Your task to perform on an android device: turn off notifications in google photos Image 0: 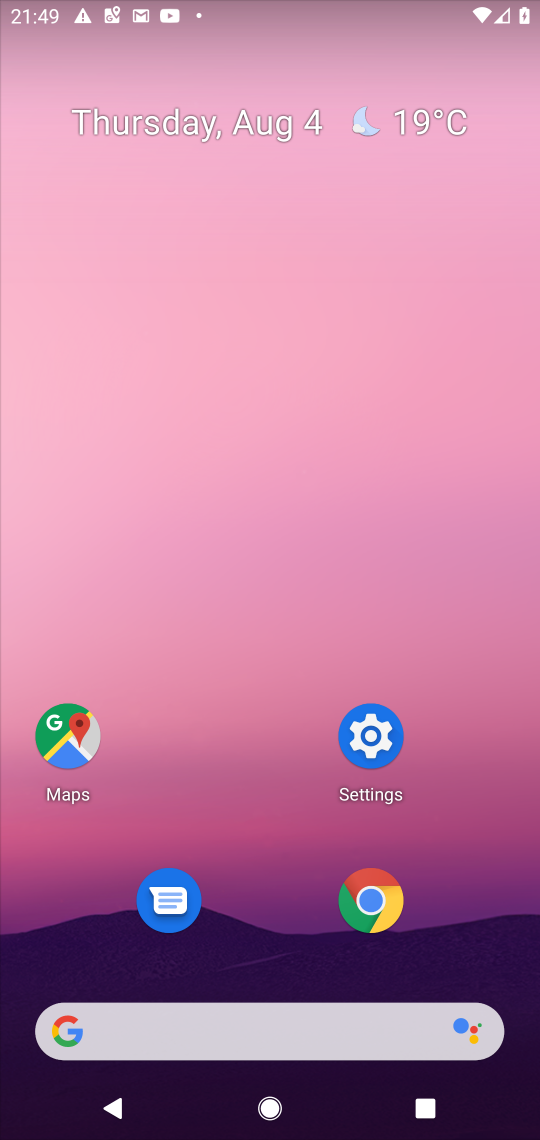
Step 0: drag from (289, 938) to (374, 420)
Your task to perform on an android device: turn off notifications in google photos Image 1: 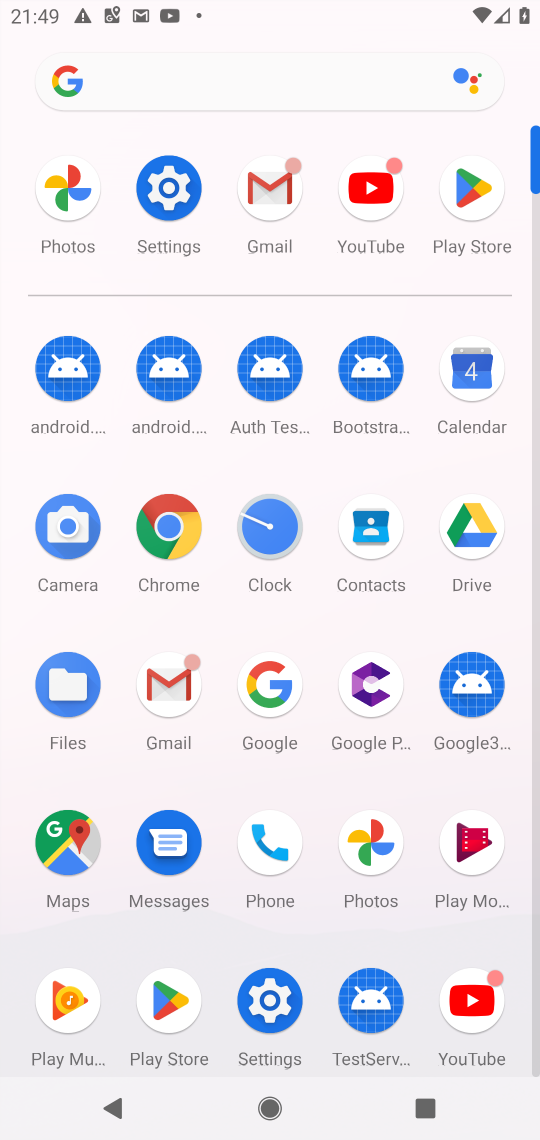
Step 1: click (372, 837)
Your task to perform on an android device: turn off notifications in google photos Image 2: 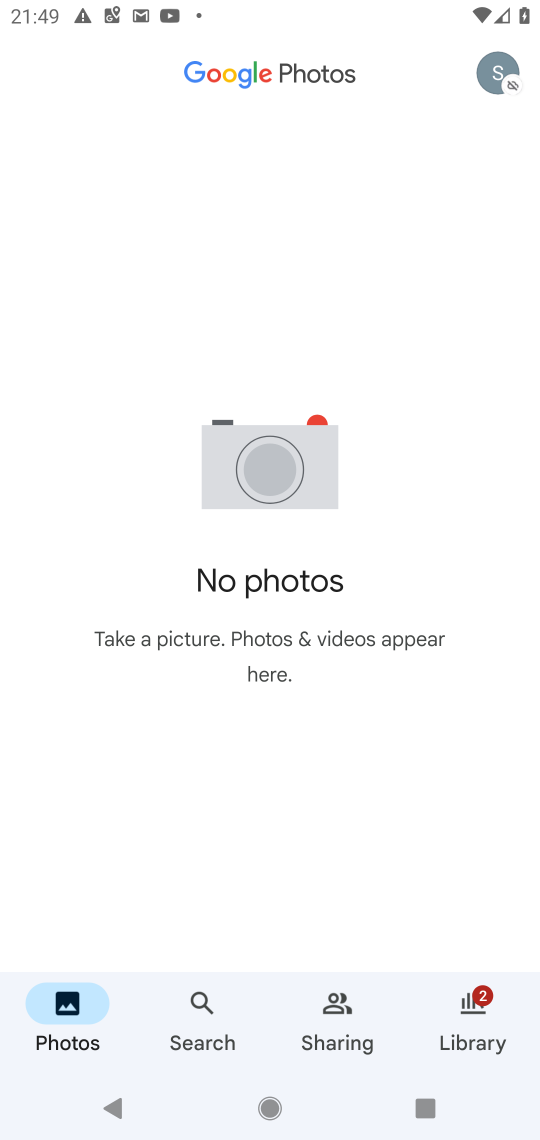
Step 2: click (494, 69)
Your task to perform on an android device: turn off notifications in google photos Image 3: 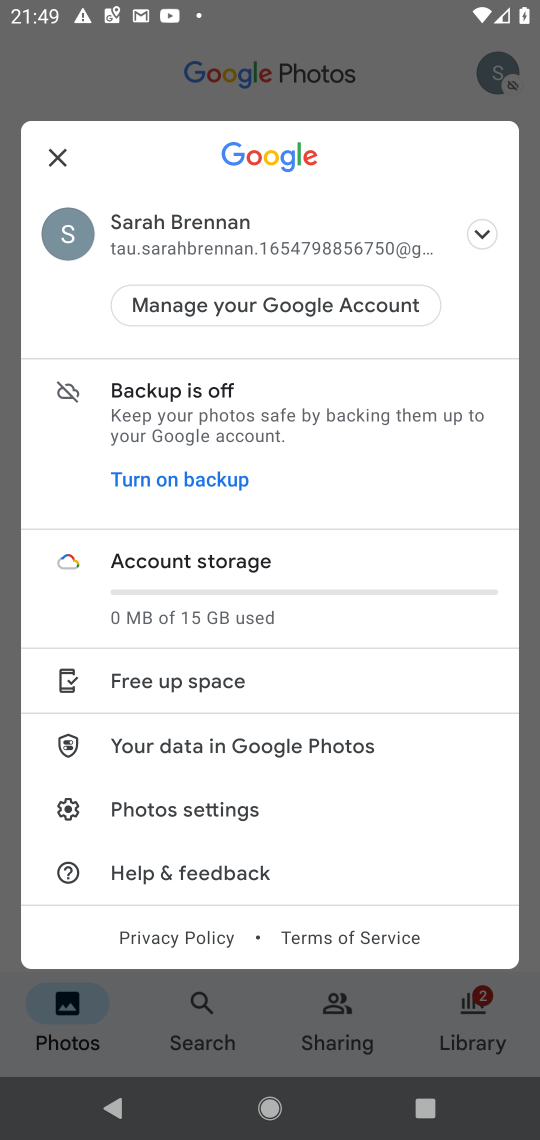
Step 3: click (183, 806)
Your task to perform on an android device: turn off notifications in google photos Image 4: 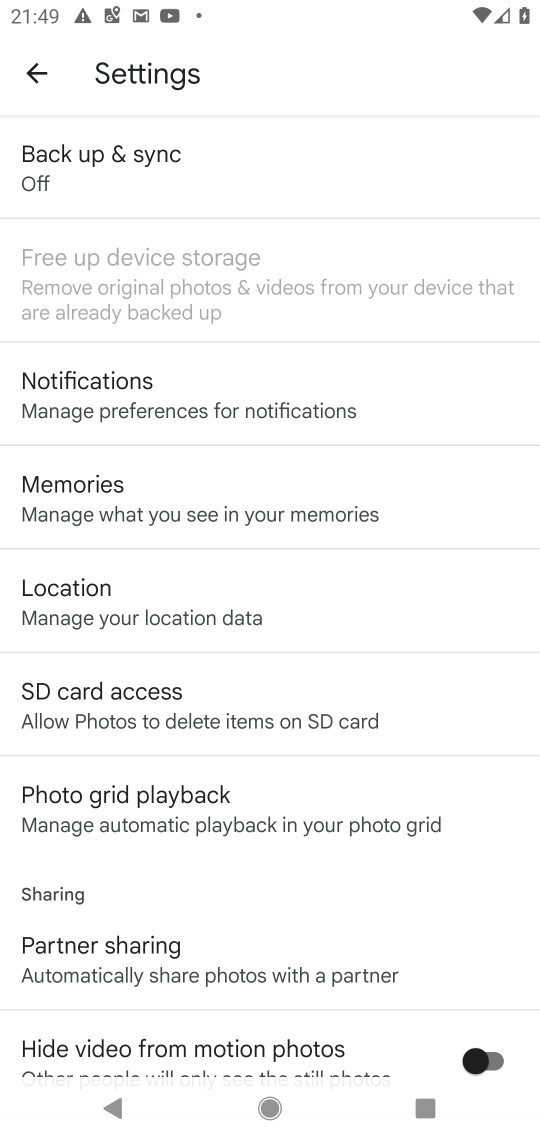
Step 4: click (191, 405)
Your task to perform on an android device: turn off notifications in google photos Image 5: 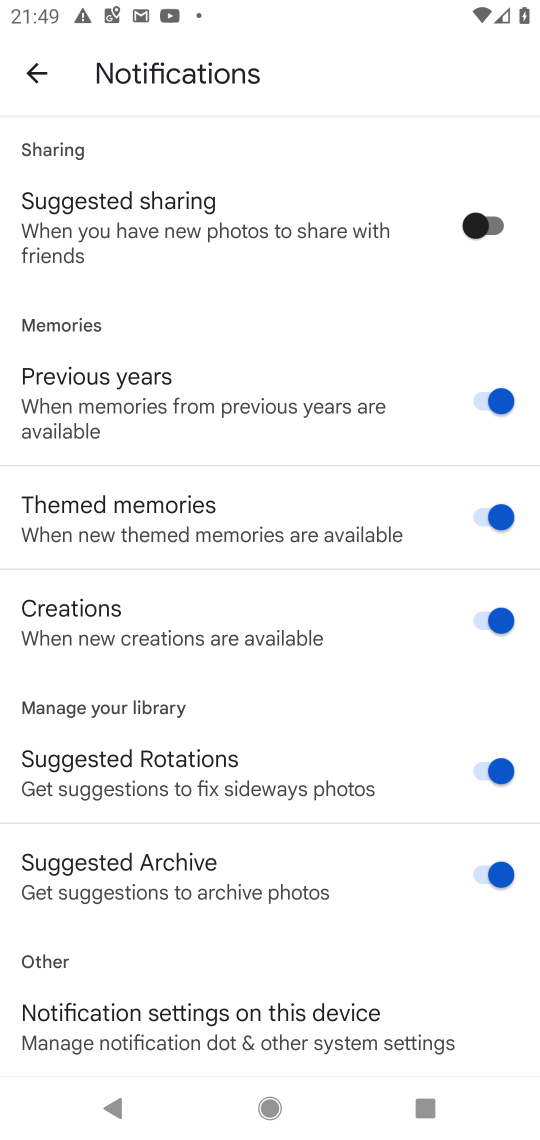
Step 5: drag from (227, 865) to (430, 108)
Your task to perform on an android device: turn off notifications in google photos Image 6: 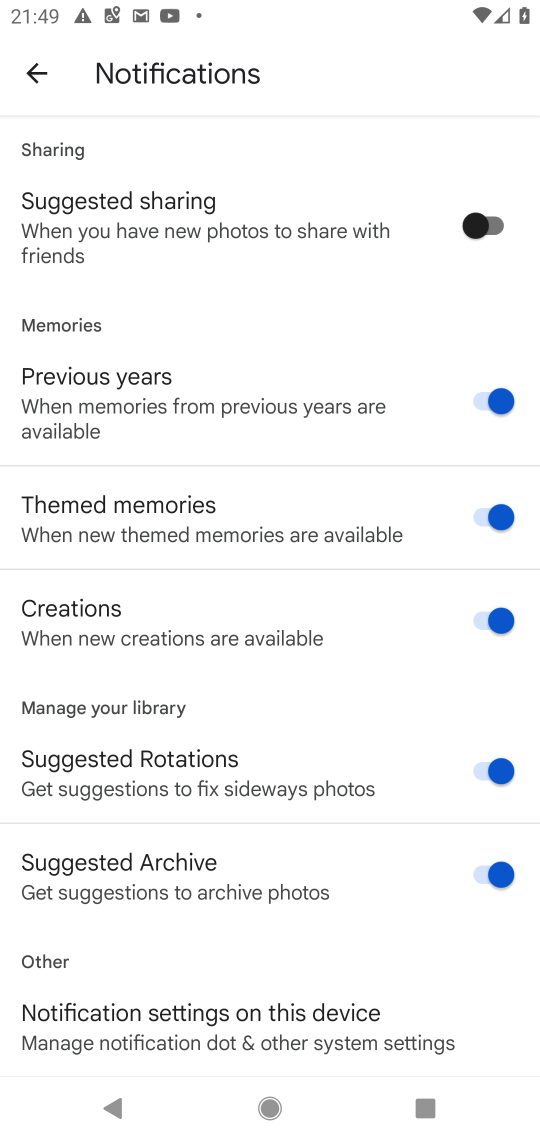
Step 6: click (186, 1033)
Your task to perform on an android device: turn off notifications in google photos Image 7: 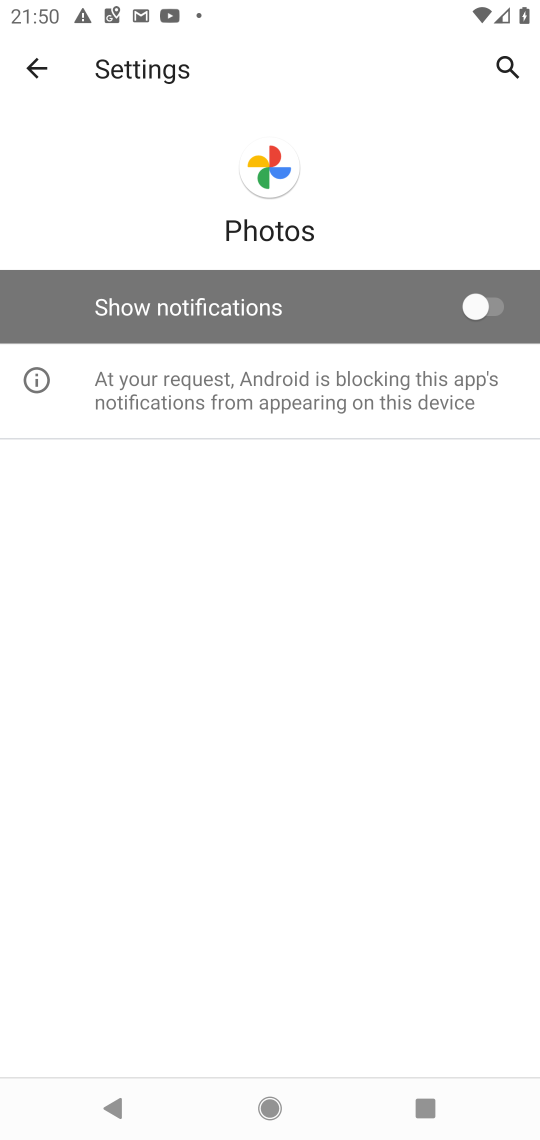
Step 7: task complete